Your task to perform on an android device: check android version Image 0: 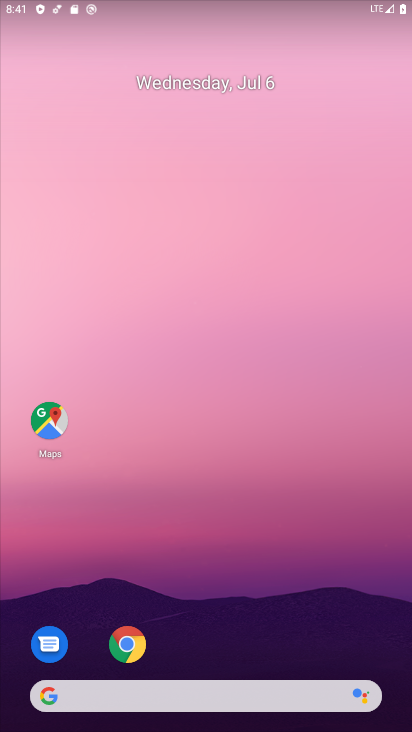
Step 0: drag from (204, 650) to (215, 178)
Your task to perform on an android device: check android version Image 1: 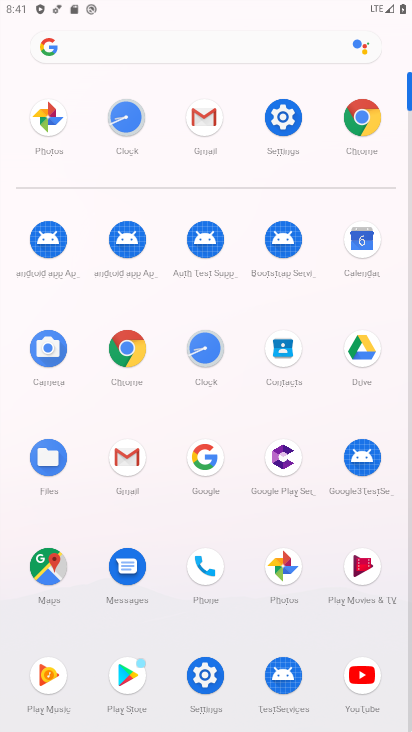
Step 1: click (272, 102)
Your task to perform on an android device: check android version Image 2: 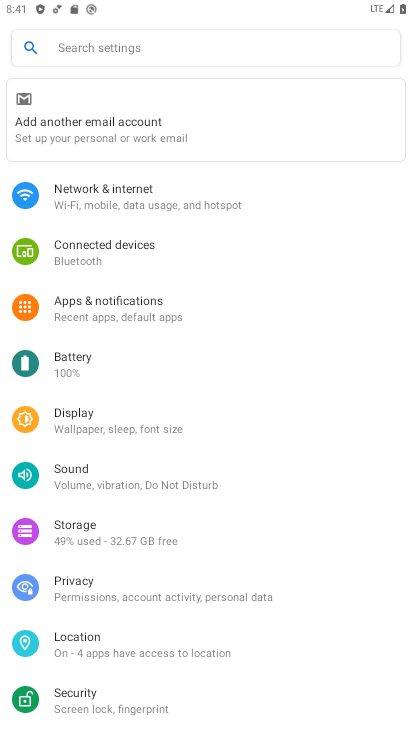
Step 2: drag from (198, 639) to (213, 112)
Your task to perform on an android device: check android version Image 3: 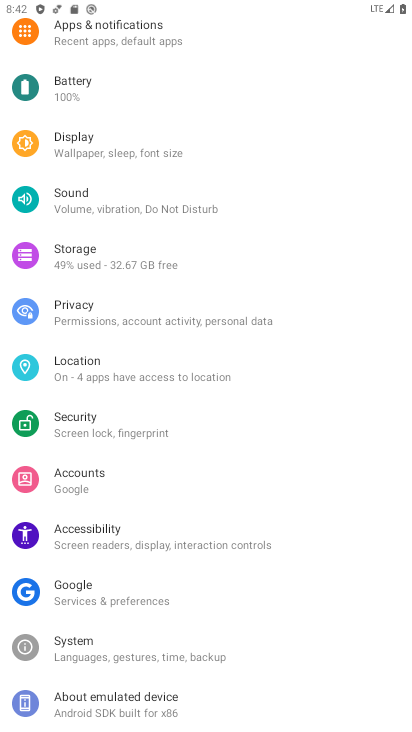
Step 3: drag from (171, 648) to (192, 217)
Your task to perform on an android device: check android version Image 4: 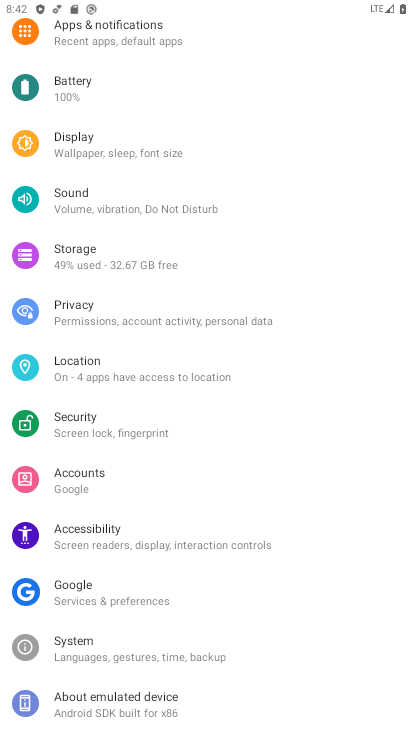
Step 4: drag from (242, 591) to (206, 277)
Your task to perform on an android device: check android version Image 5: 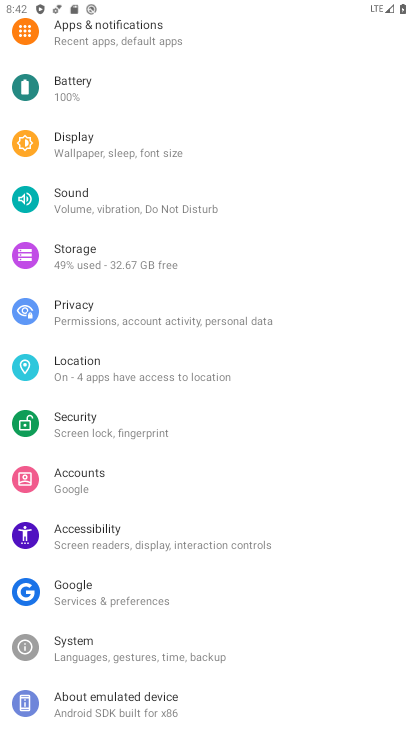
Step 5: click (90, 695)
Your task to perform on an android device: check android version Image 6: 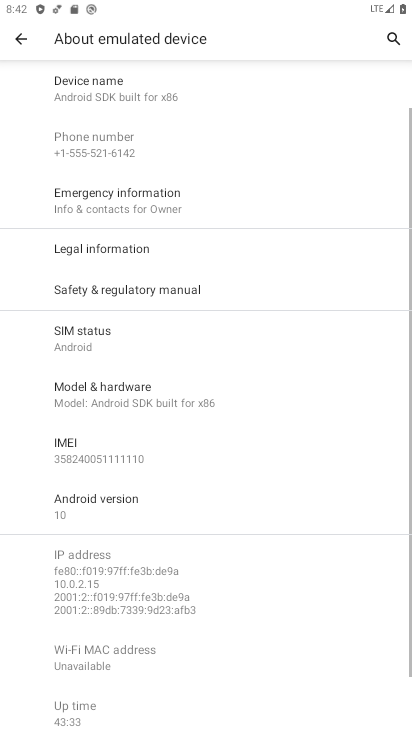
Step 6: click (176, 497)
Your task to perform on an android device: check android version Image 7: 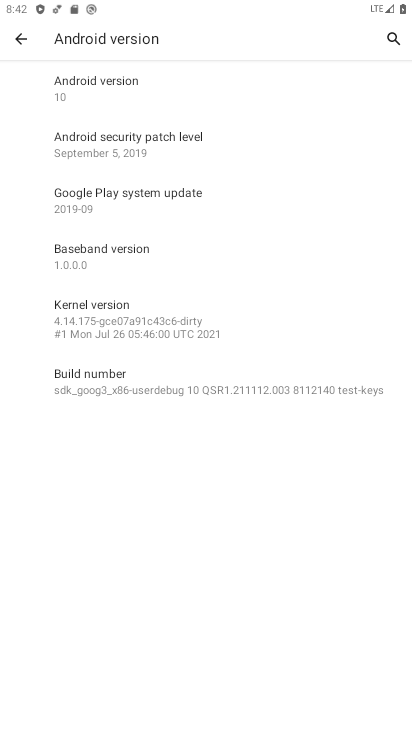
Step 7: click (142, 93)
Your task to perform on an android device: check android version Image 8: 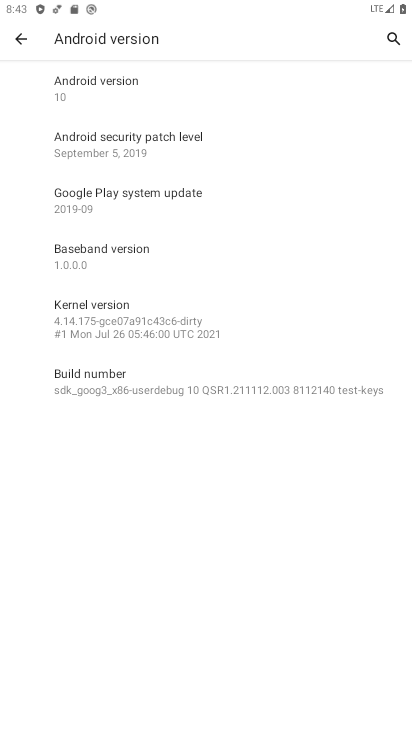
Step 8: click (115, 97)
Your task to perform on an android device: check android version Image 9: 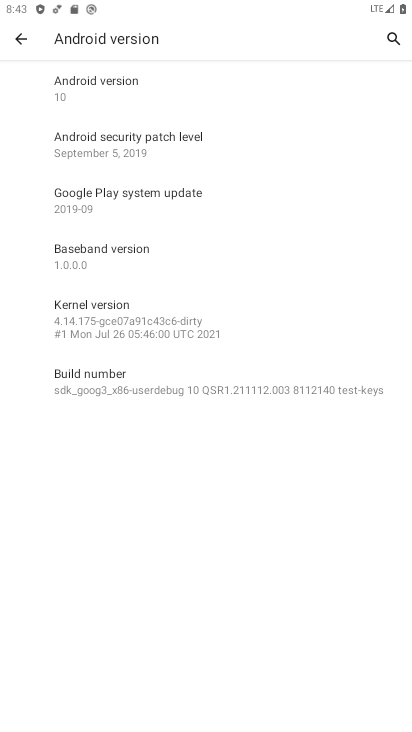
Step 9: task complete